Your task to perform on an android device: turn off airplane mode Image 0: 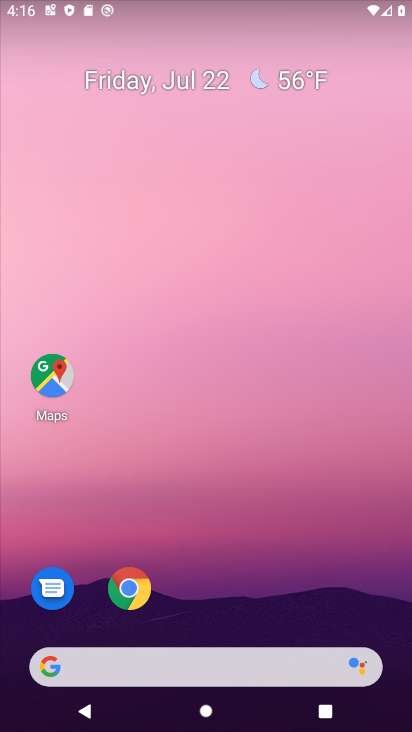
Step 0: drag from (245, 611) to (258, 99)
Your task to perform on an android device: turn off airplane mode Image 1: 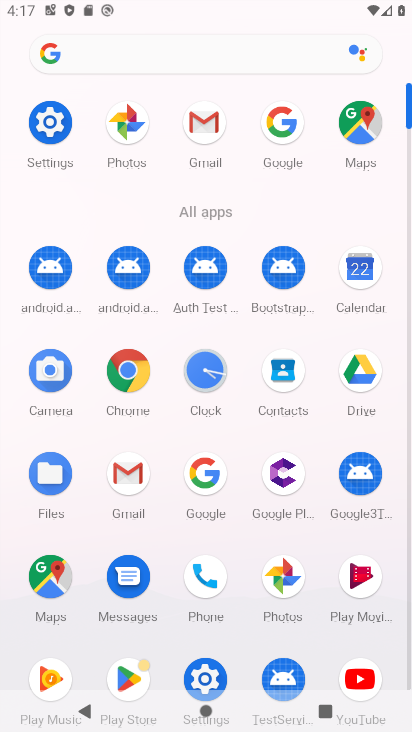
Step 1: click (28, 138)
Your task to perform on an android device: turn off airplane mode Image 2: 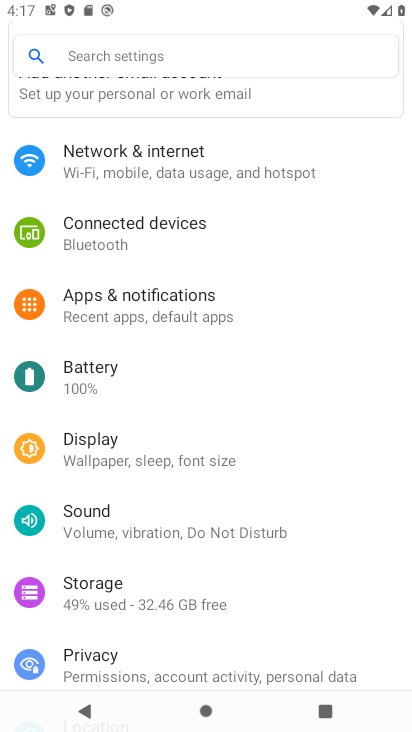
Step 2: click (170, 176)
Your task to perform on an android device: turn off airplane mode Image 3: 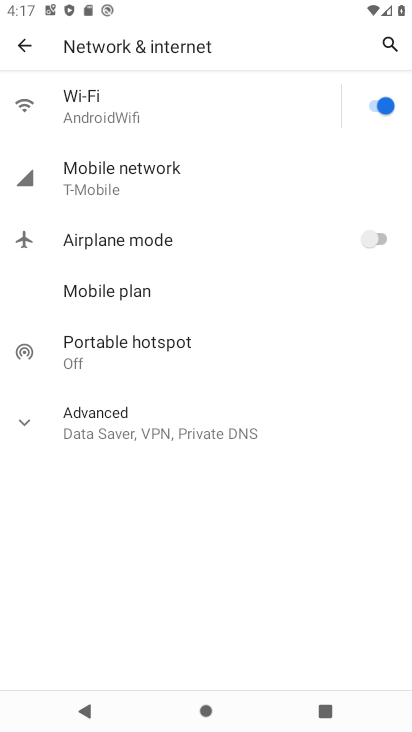
Step 3: task complete